Your task to perform on an android device: turn smart compose on in the gmail app Image 0: 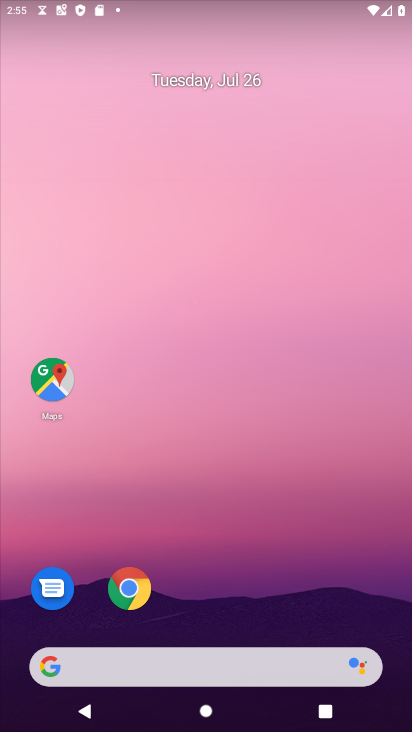
Step 0: drag from (300, 525) to (328, 154)
Your task to perform on an android device: turn smart compose on in the gmail app Image 1: 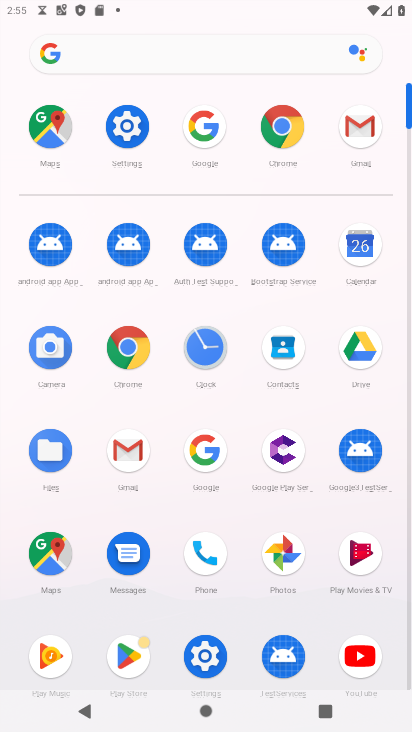
Step 1: click (365, 125)
Your task to perform on an android device: turn smart compose on in the gmail app Image 2: 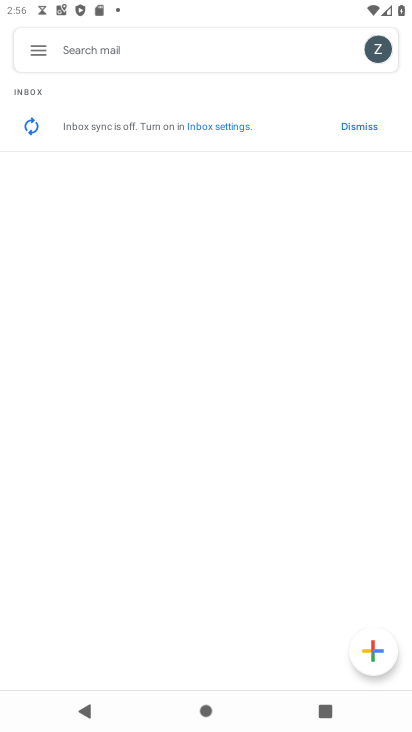
Step 2: click (43, 42)
Your task to perform on an android device: turn smart compose on in the gmail app Image 3: 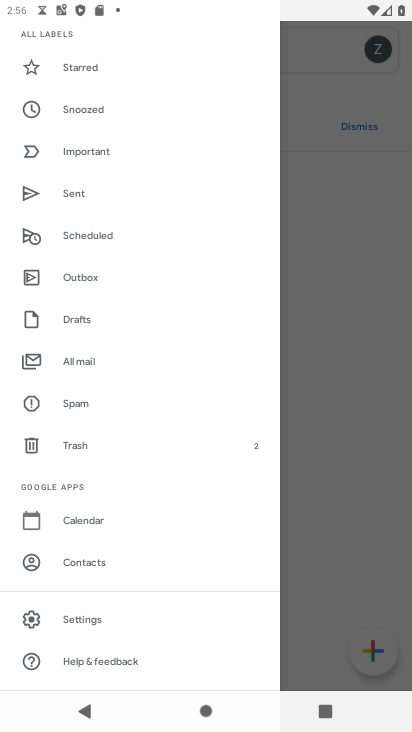
Step 3: click (62, 624)
Your task to perform on an android device: turn smart compose on in the gmail app Image 4: 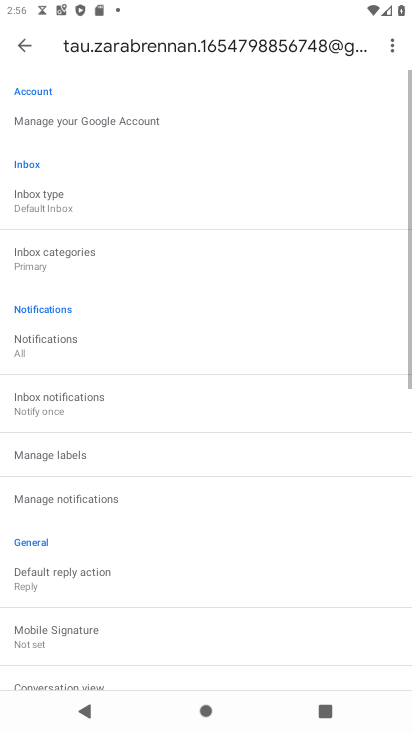
Step 4: task complete